Your task to perform on an android device: find photos in the google photos app Image 0: 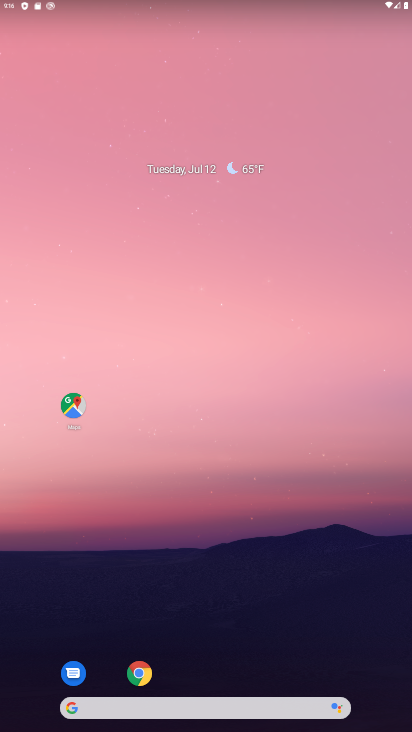
Step 0: drag from (326, 625) to (331, 133)
Your task to perform on an android device: find photos in the google photos app Image 1: 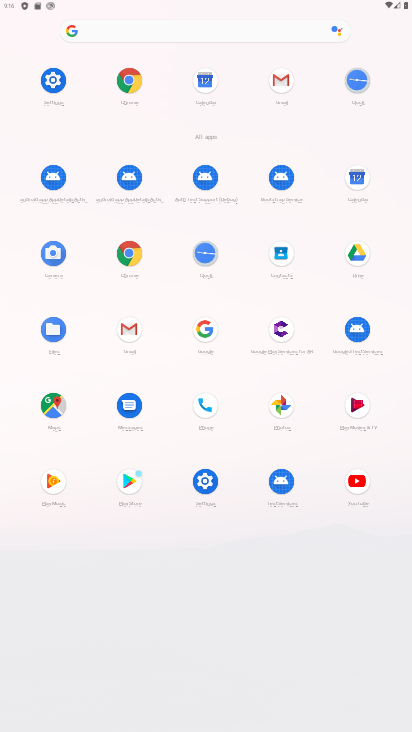
Step 1: click (276, 406)
Your task to perform on an android device: find photos in the google photos app Image 2: 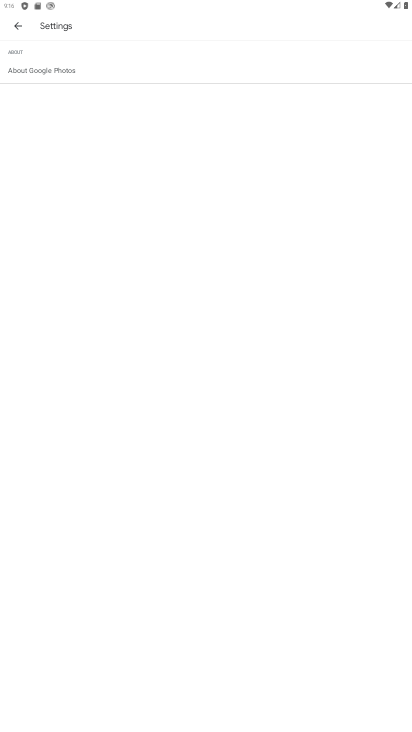
Step 2: press back button
Your task to perform on an android device: find photos in the google photos app Image 3: 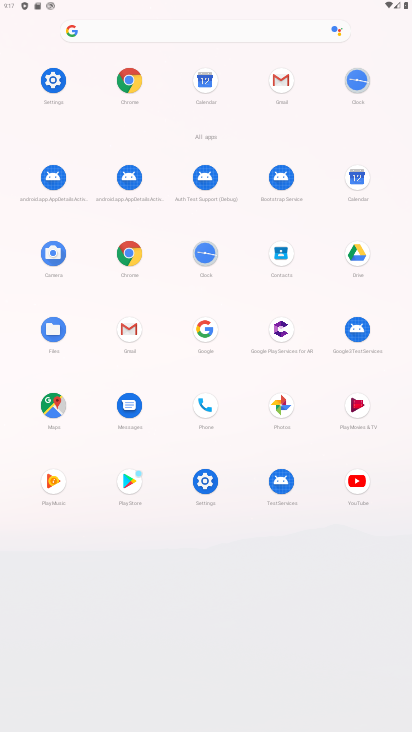
Step 3: click (285, 410)
Your task to perform on an android device: find photos in the google photos app Image 4: 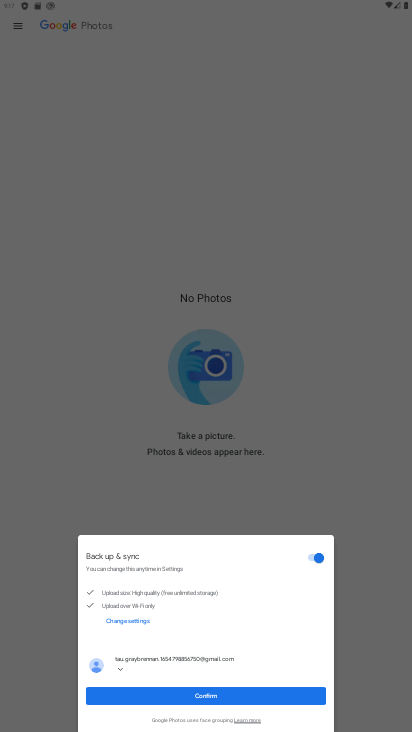
Step 4: click (240, 696)
Your task to perform on an android device: find photos in the google photos app Image 5: 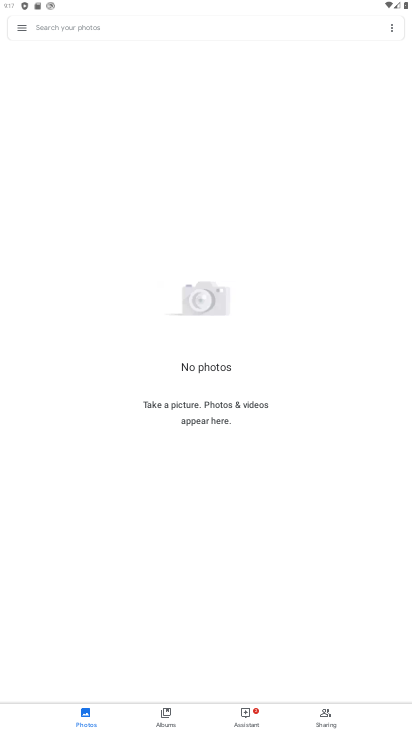
Step 5: task complete